Your task to perform on an android device: change the clock display to analog Image 0: 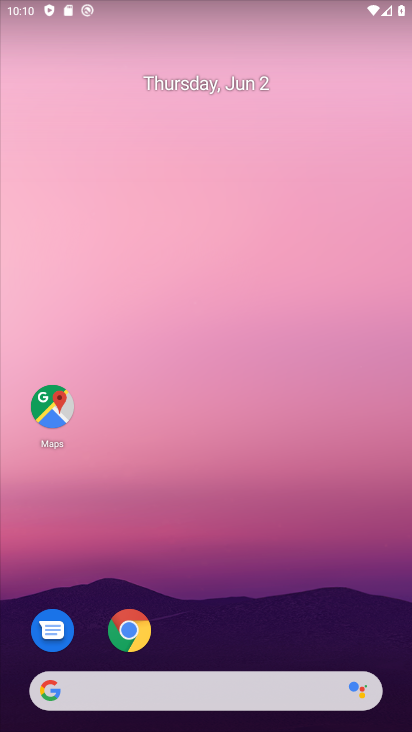
Step 0: click (222, 177)
Your task to perform on an android device: change the clock display to analog Image 1: 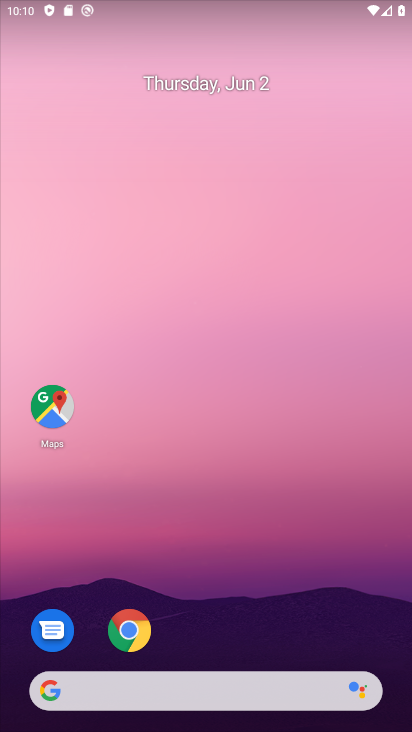
Step 1: drag from (238, 465) to (198, 103)
Your task to perform on an android device: change the clock display to analog Image 2: 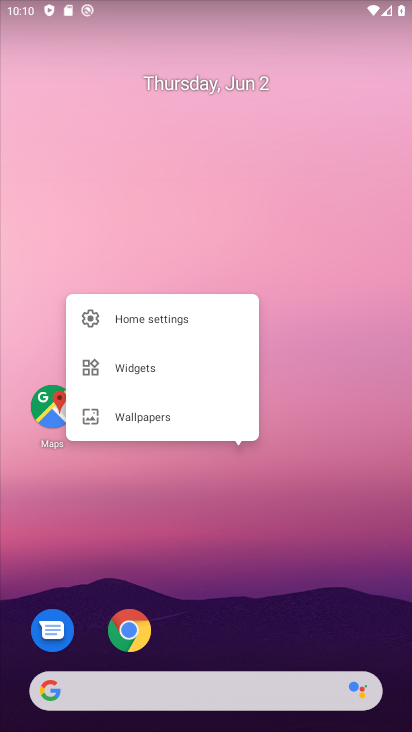
Step 2: click (278, 681)
Your task to perform on an android device: change the clock display to analog Image 3: 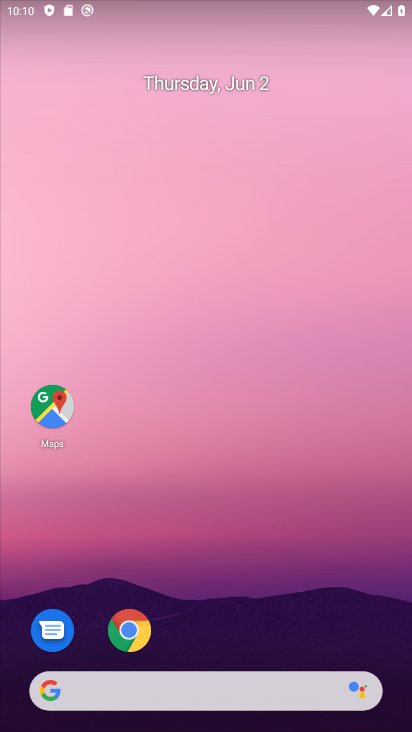
Step 3: press back button
Your task to perform on an android device: change the clock display to analog Image 4: 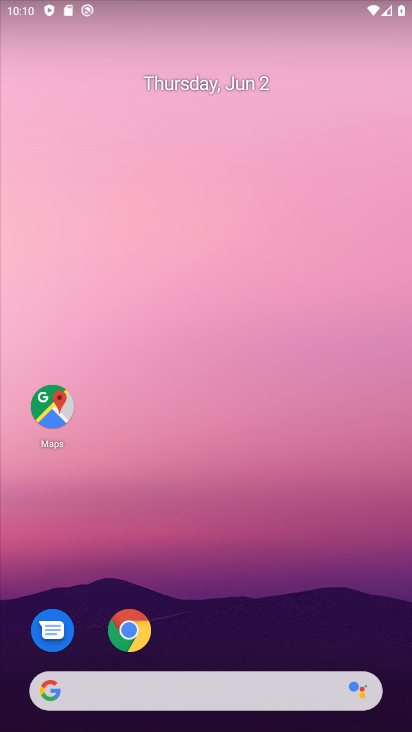
Step 4: drag from (265, 726) to (104, 192)
Your task to perform on an android device: change the clock display to analog Image 5: 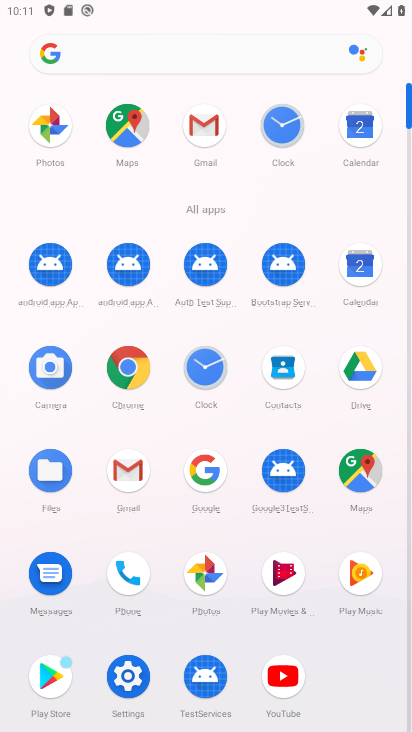
Step 5: click (196, 16)
Your task to perform on an android device: change the clock display to analog Image 6: 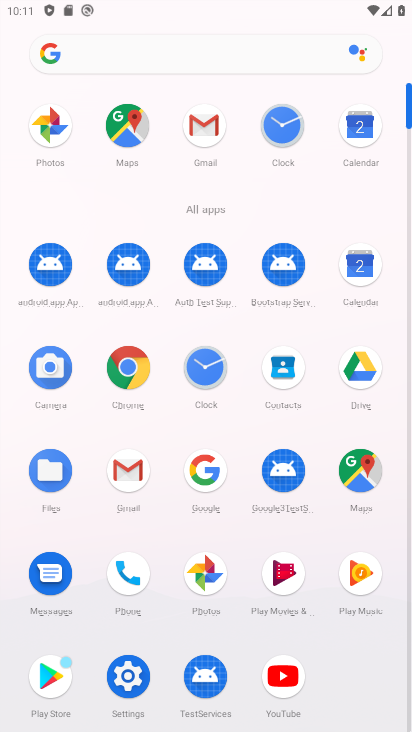
Step 6: click (209, 372)
Your task to perform on an android device: change the clock display to analog Image 7: 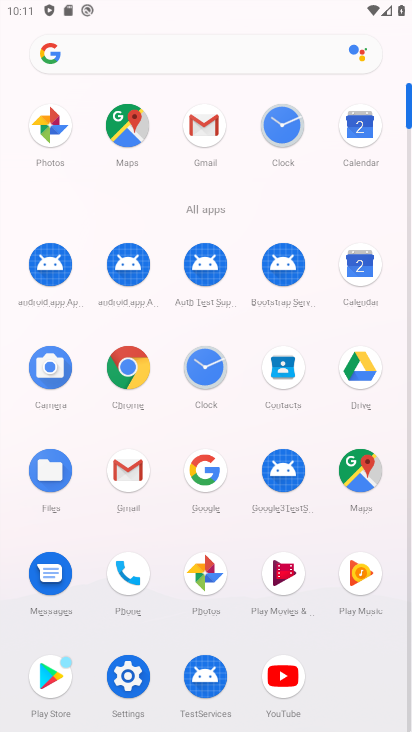
Step 7: click (207, 369)
Your task to perform on an android device: change the clock display to analog Image 8: 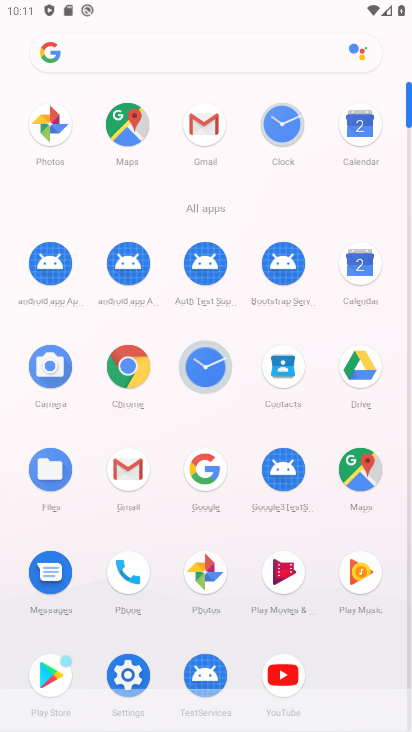
Step 8: click (208, 365)
Your task to perform on an android device: change the clock display to analog Image 9: 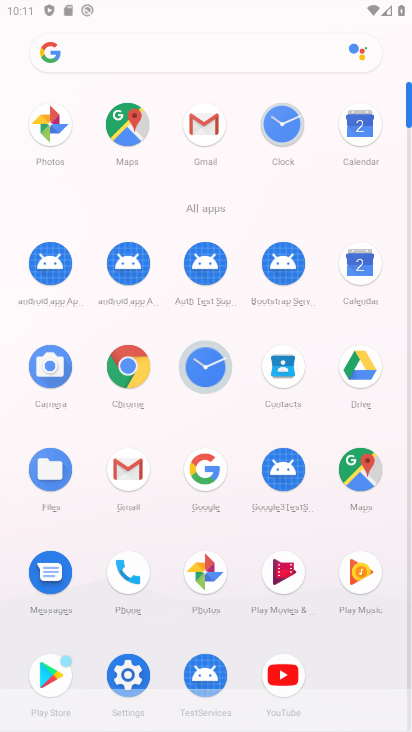
Step 9: click (208, 364)
Your task to perform on an android device: change the clock display to analog Image 10: 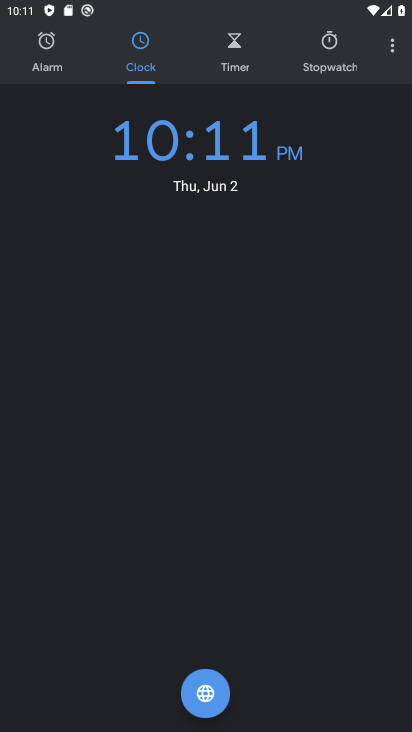
Step 10: click (208, 363)
Your task to perform on an android device: change the clock display to analog Image 11: 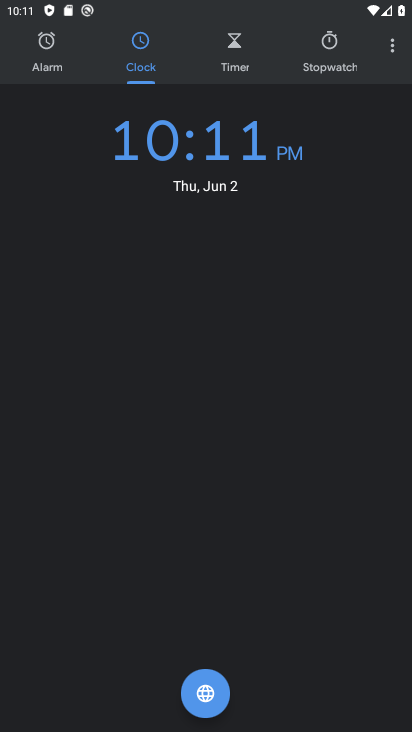
Step 11: click (208, 363)
Your task to perform on an android device: change the clock display to analog Image 12: 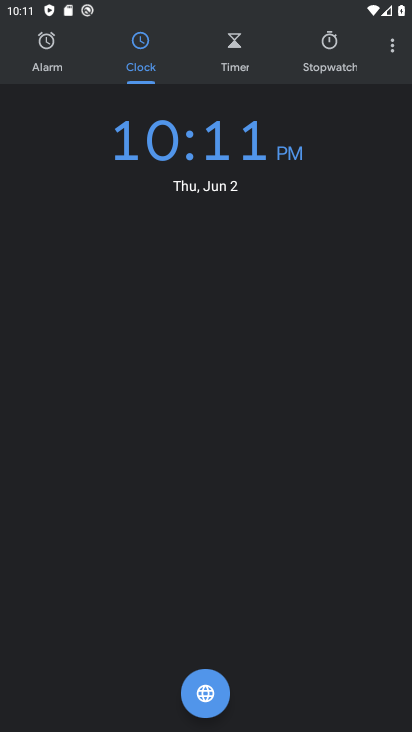
Step 12: click (385, 47)
Your task to perform on an android device: change the clock display to analog Image 13: 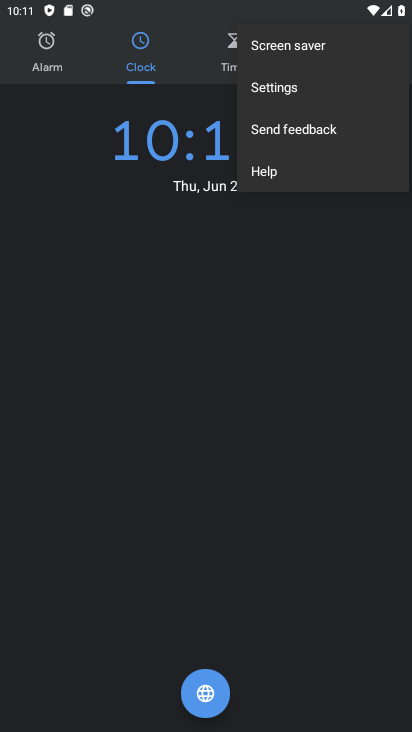
Step 13: click (392, 53)
Your task to perform on an android device: change the clock display to analog Image 14: 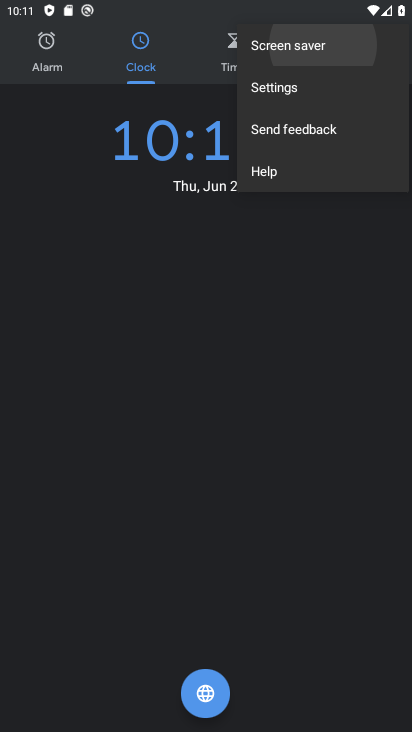
Step 14: click (392, 53)
Your task to perform on an android device: change the clock display to analog Image 15: 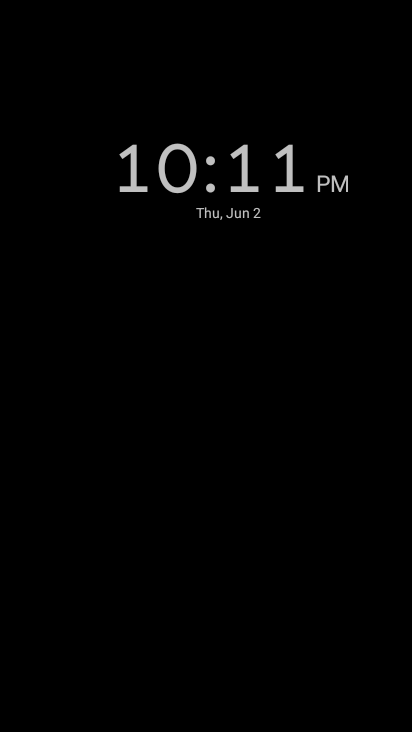
Step 15: press back button
Your task to perform on an android device: change the clock display to analog Image 16: 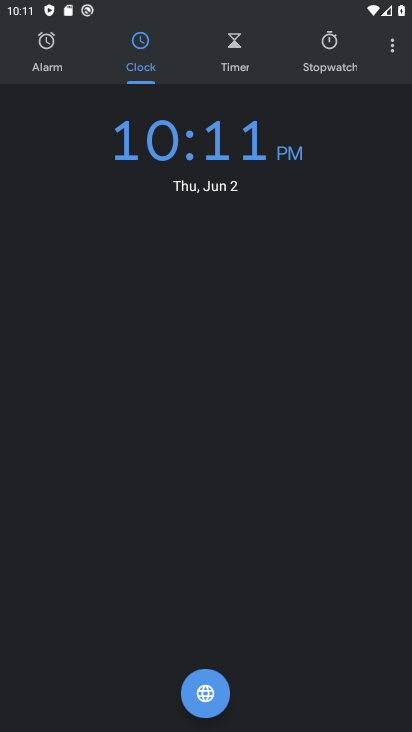
Step 16: click (393, 53)
Your task to perform on an android device: change the clock display to analog Image 17: 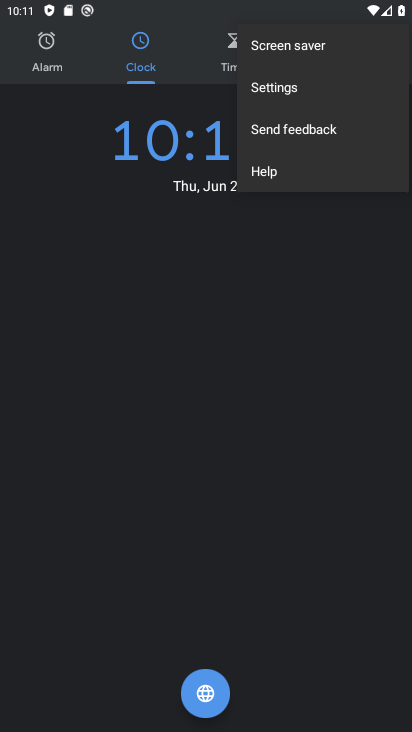
Step 17: drag from (393, 48) to (280, 84)
Your task to perform on an android device: change the clock display to analog Image 18: 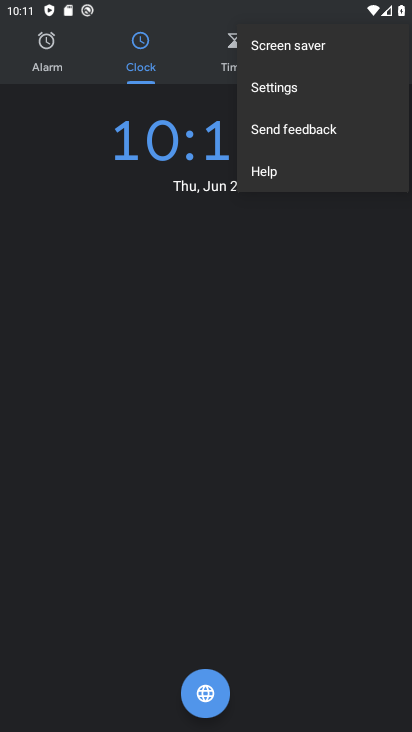
Step 18: click (283, 83)
Your task to perform on an android device: change the clock display to analog Image 19: 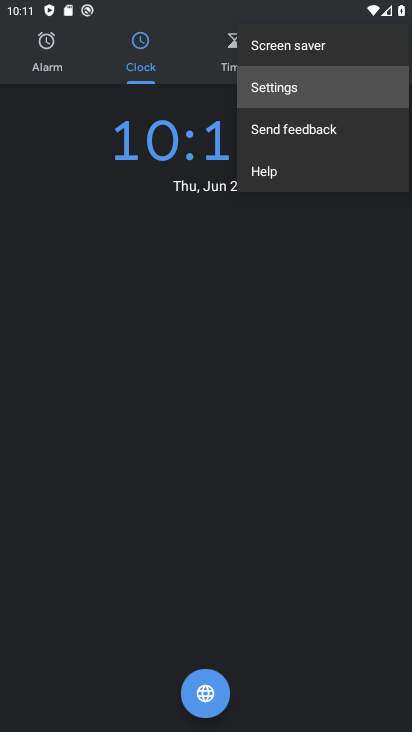
Step 19: click (284, 82)
Your task to perform on an android device: change the clock display to analog Image 20: 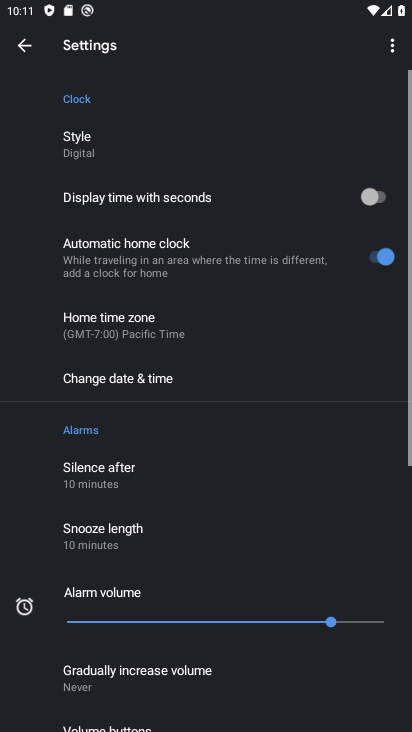
Step 20: click (270, 87)
Your task to perform on an android device: change the clock display to analog Image 21: 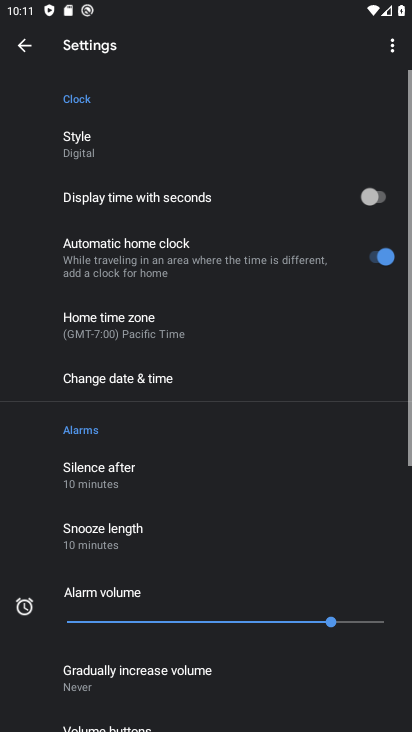
Step 21: click (270, 89)
Your task to perform on an android device: change the clock display to analog Image 22: 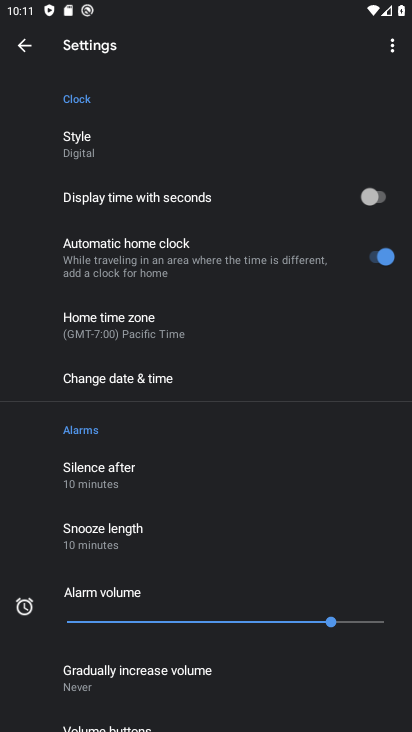
Step 22: click (125, 145)
Your task to perform on an android device: change the clock display to analog Image 23: 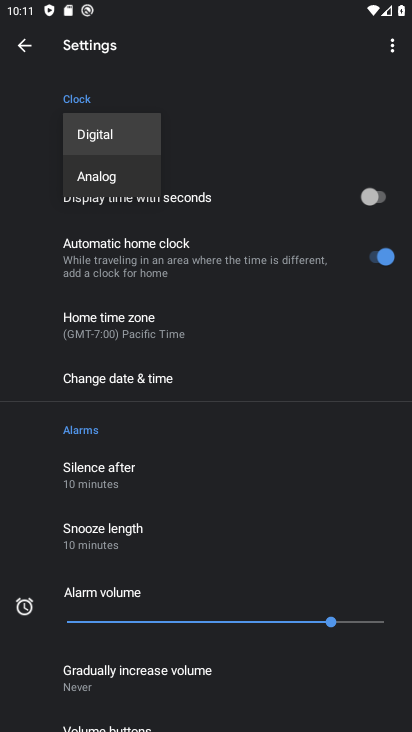
Step 23: click (92, 145)
Your task to perform on an android device: change the clock display to analog Image 24: 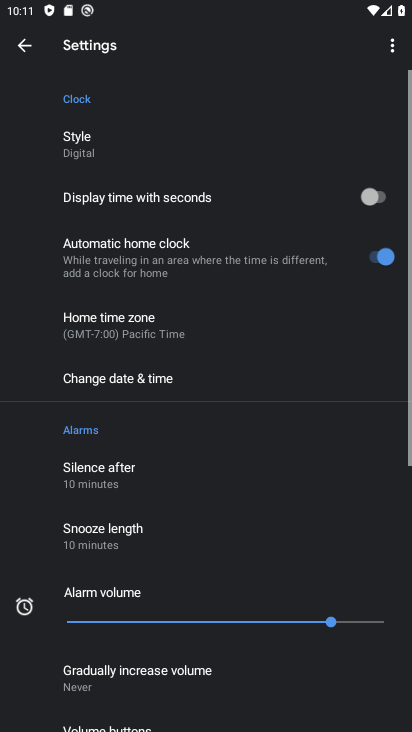
Step 24: click (106, 142)
Your task to perform on an android device: change the clock display to analog Image 25: 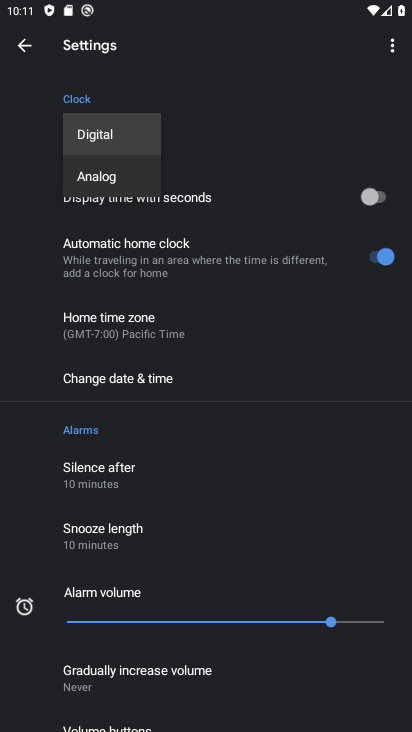
Step 25: click (113, 150)
Your task to perform on an android device: change the clock display to analog Image 26: 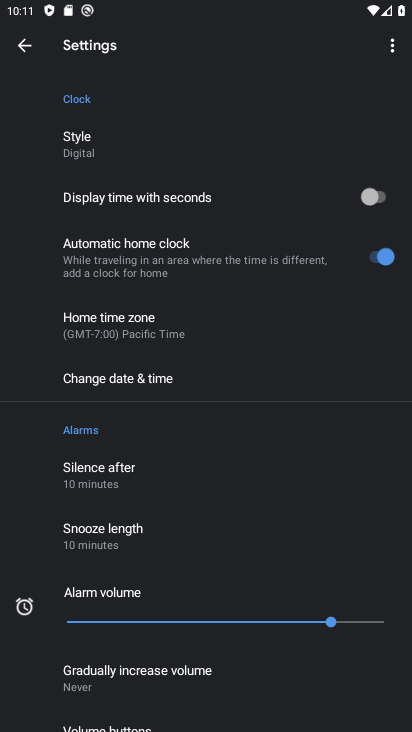
Step 26: click (110, 181)
Your task to perform on an android device: change the clock display to analog Image 27: 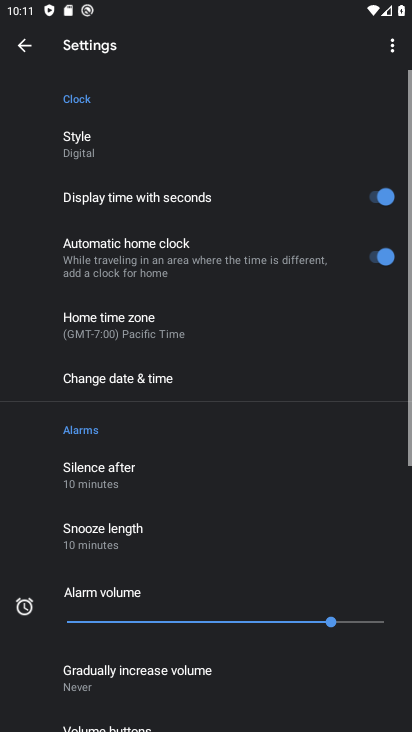
Step 27: task complete